Your task to perform on an android device: Open calendar and show me the fourth week of next month Image 0: 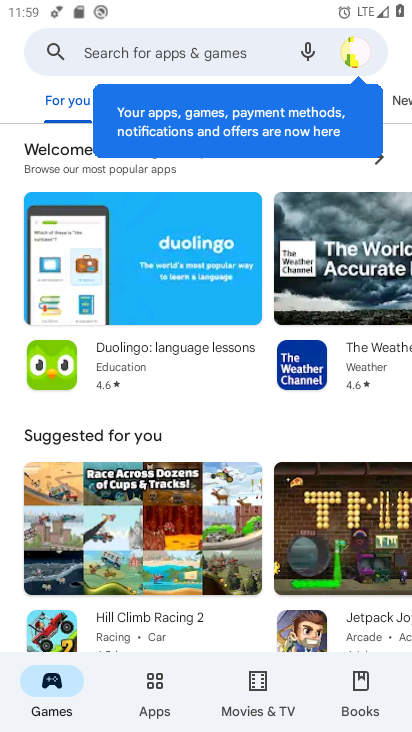
Step 0: press home button
Your task to perform on an android device: Open calendar and show me the fourth week of next month Image 1: 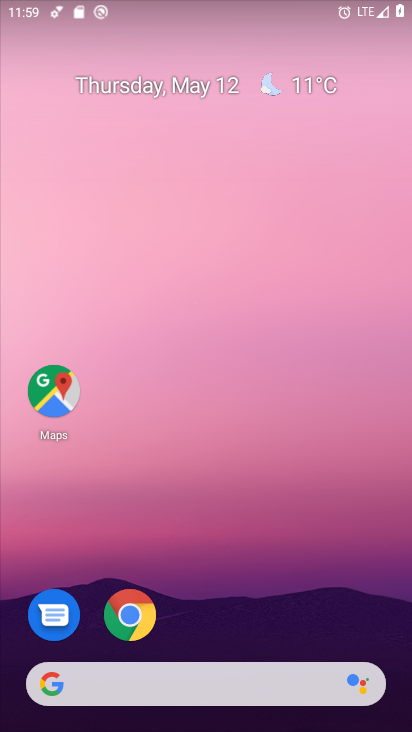
Step 1: drag from (218, 567) to (318, 60)
Your task to perform on an android device: Open calendar and show me the fourth week of next month Image 2: 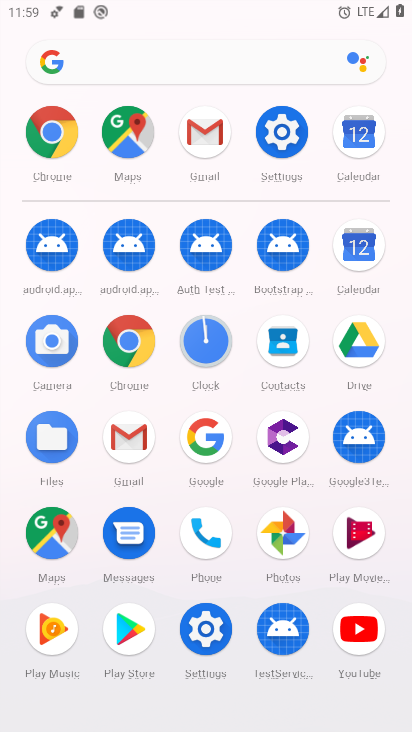
Step 2: click (361, 134)
Your task to perform on an android device: Open calendar and show me the fourth week of next month Image 3: 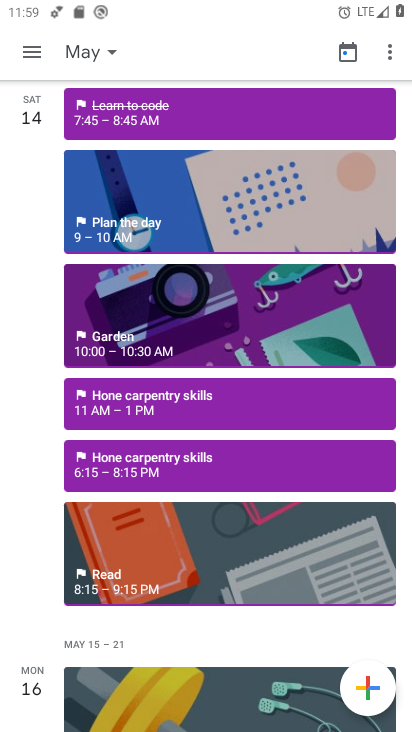
Step 3: click (37, 51)
Your task to perform on an android device: Open calendar and show me the fourth week of next month Image 4: 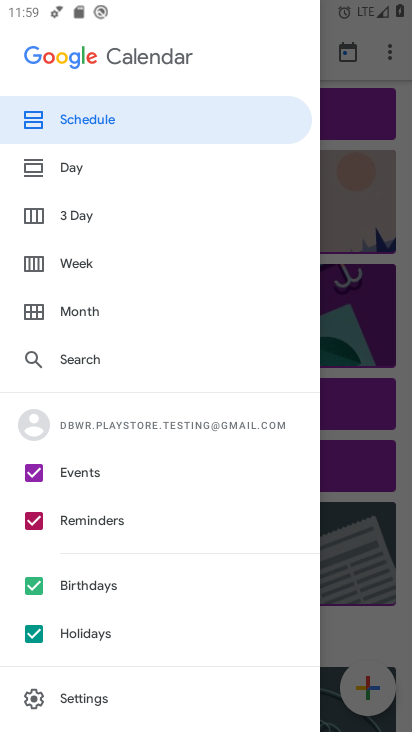
Step 4: click (37, 299)
Your task to perform on an android device: Open calendar and show me the fourth week of next month Image 5: 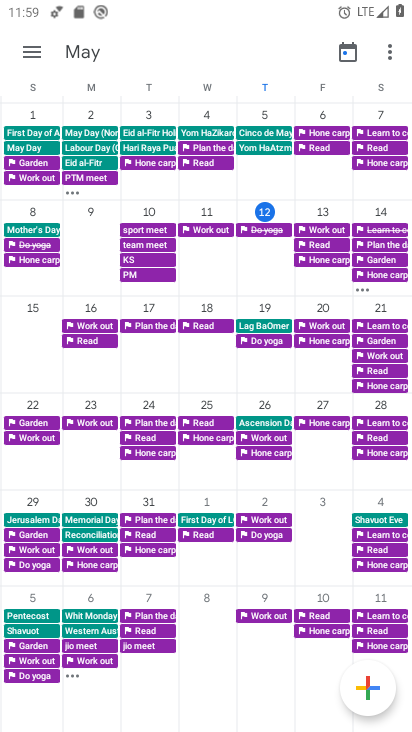
Step 5: drag from (334, 387) to (3, 461)
Your task to perform on an android device: Open calendar and show me the fourth week of next month Image 6: 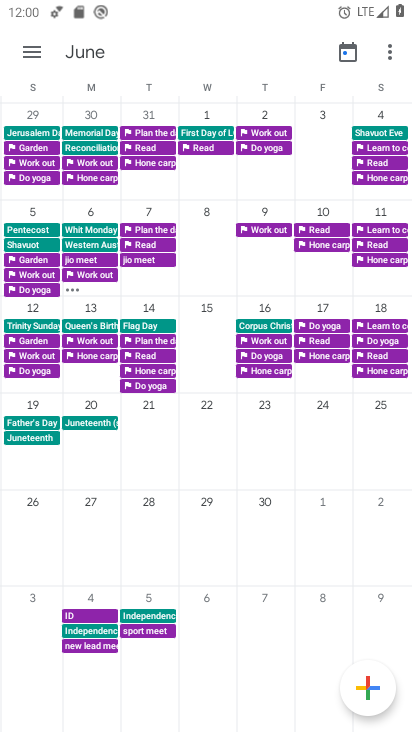
Step 6: click (36, 501)
Your task to perform on an android device: Open calendar and show me the fourth week of next month Image 7: 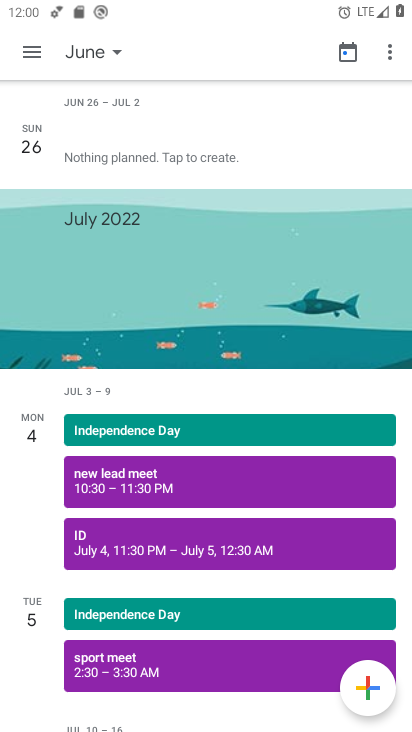
Step 7: click (37, 47)
Your task to perform on an android device: Open calendar and show me the fourth week of next month Image 8: 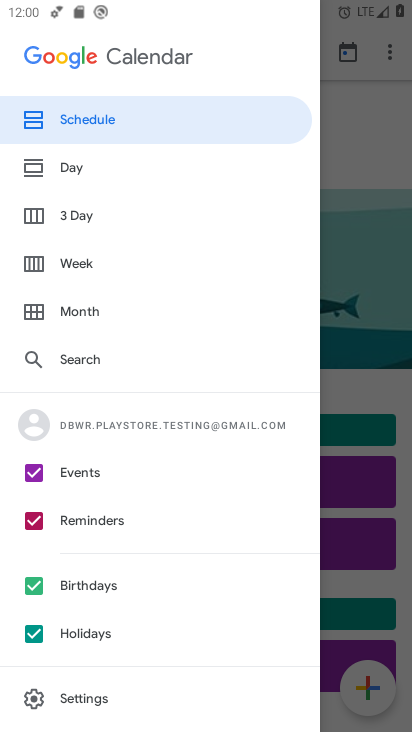
Step 8: click (42, 251)
Your task to perform on an android device: Open calendar and show me the fourth week of next month Image 9: 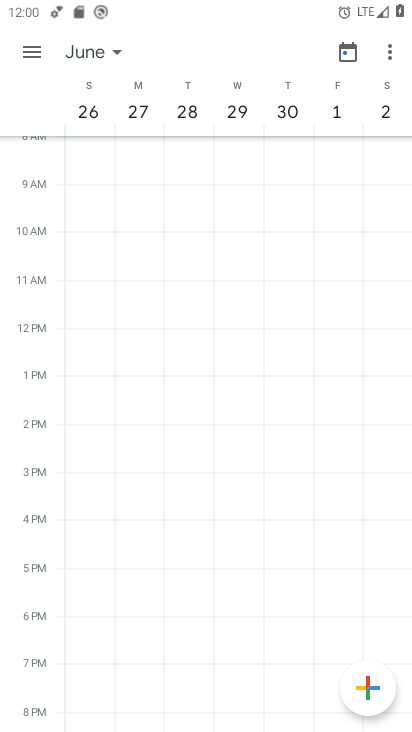
Step 9: task complete